Your task to perform on an android device: Open Yahoo.com Image 0: 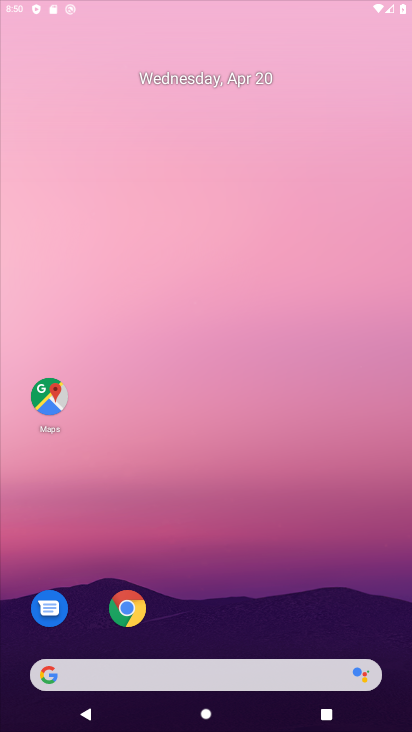
Step 0: drag from (288, 0) to (374, 40)
Your task to perform on an android device: Open Yahoo.com Image 1: 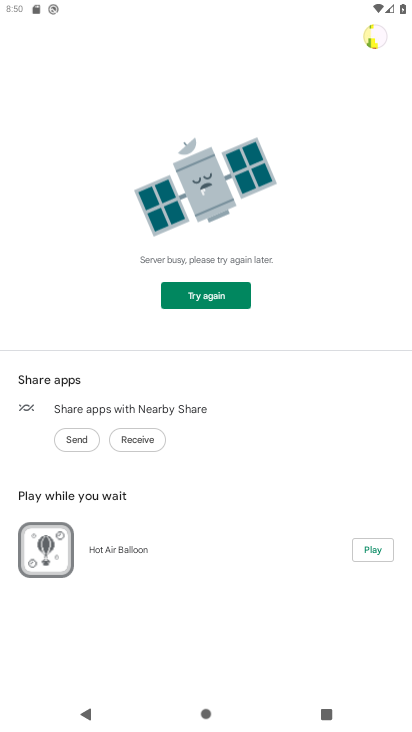
Step 1: press back button
Your task to perform on an android device: Open Yahoo.com Image 2: 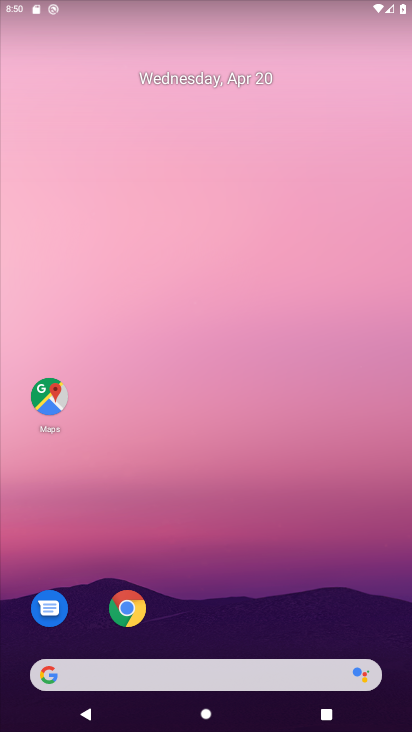
Step 2: drag from (366, 601) to (358, 99)
Your task to perform on an android device: Open Yahoo.com Image 3: 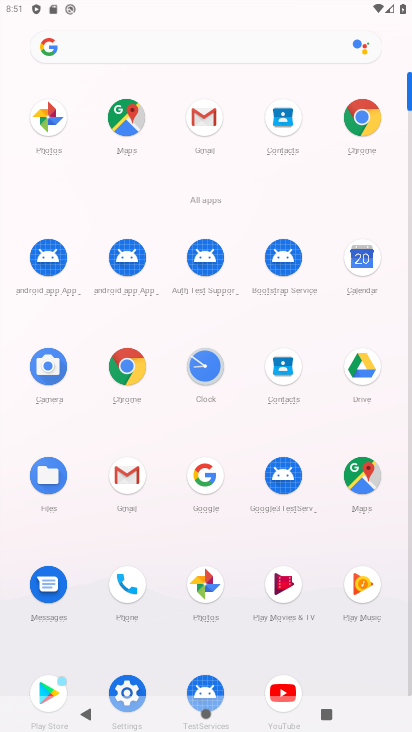
Step 3: click (358, 127)
Your task to perform on an android device: Open Yahoo.com Image 4: 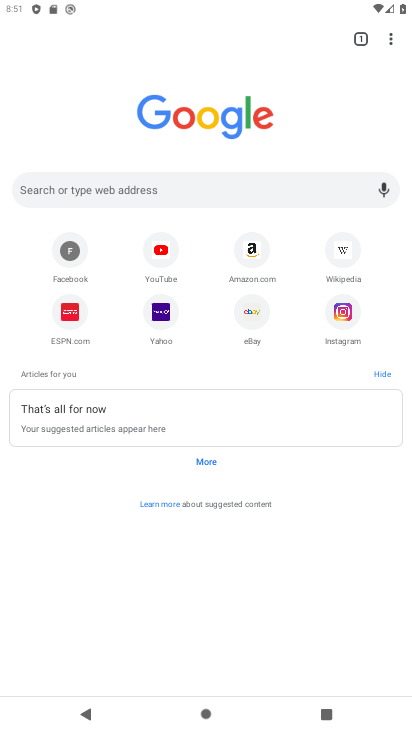
Step 4: click (164, 323)
Your task to perform on an android device: Open Yahoo.com Image 5: 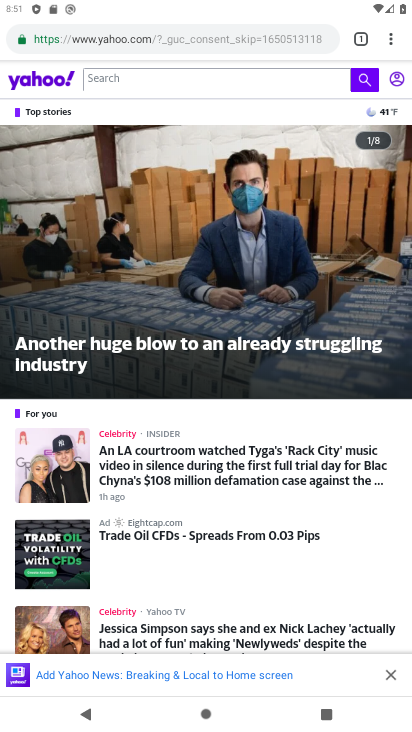
Step 5: task complete